Your task to perform on an android device: Open Chrome and go to the settings page Image 0: 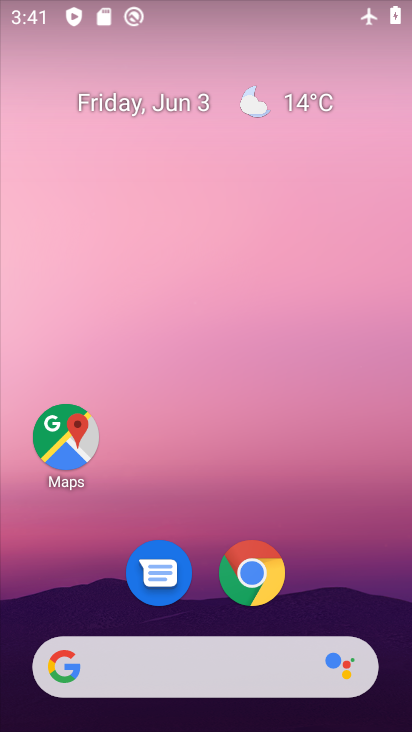
Step 0: drag from (370, 57) to (234, 178)
Your task to perform on an android device: Open Chrome and go to the settings page Image 1: 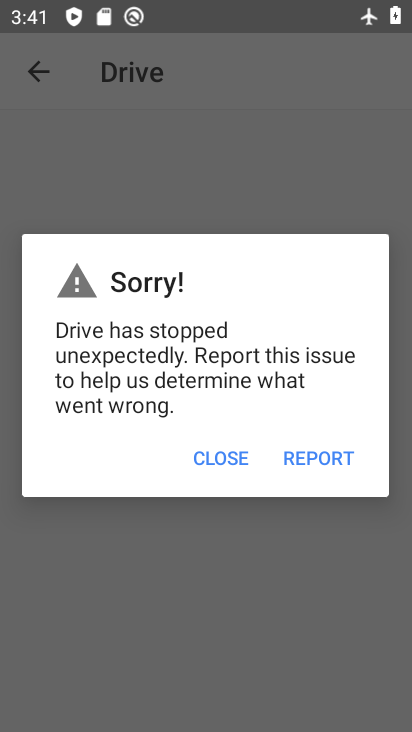
Step 1: press home button
Your task to perform on an android device: Open Chrome and go to the settings page Image 2: 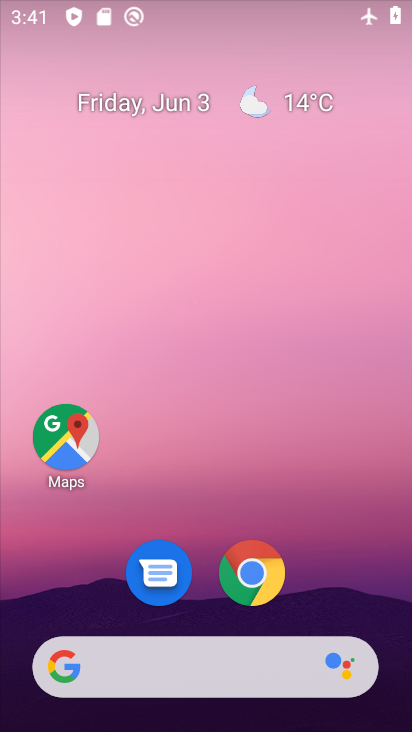
Step 2: drag from (243, 609) to (303, 73)
Your task to perform on an android device: Open Chrome and go to the settings page Image 3: 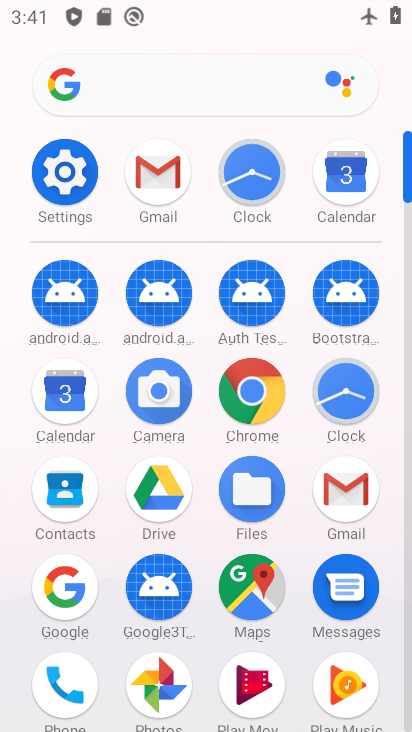
Step 3: click (259, 422)
Your task to perform on an android device: Open Chrome and go to the settings page Image 4: 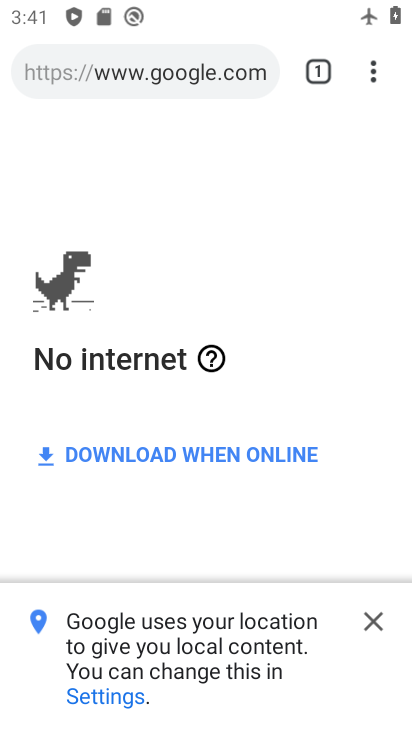
Step 4: click (371, 80)
Your task to perform on an android device: Open Chrome and go to the settings page Image 5: 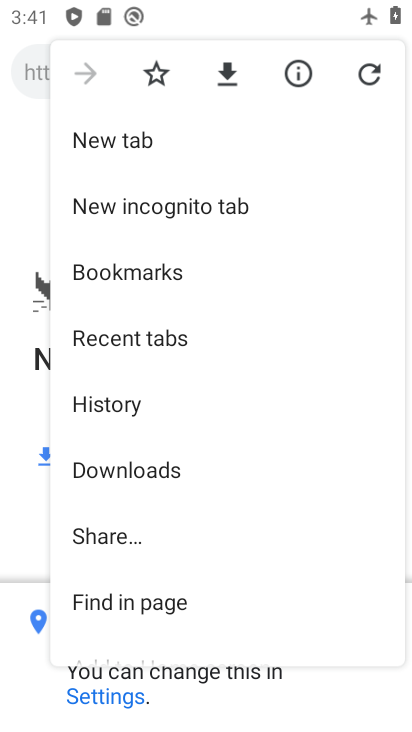
Step 5: drag from (196, 491) to (249, 144)
Your task to perform on an android device: Open Chrome and go to the settings page Image 6: 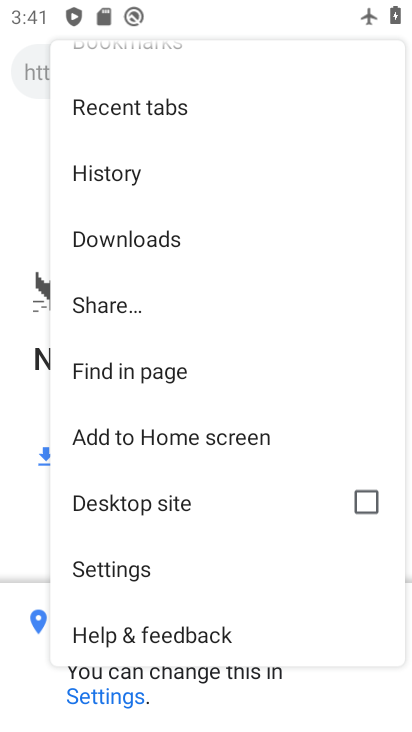
Step 6: drag from (179, 517) to (193, 303)
Your task to perform on an android device: Open Chrome and go to the settings page Image 7: 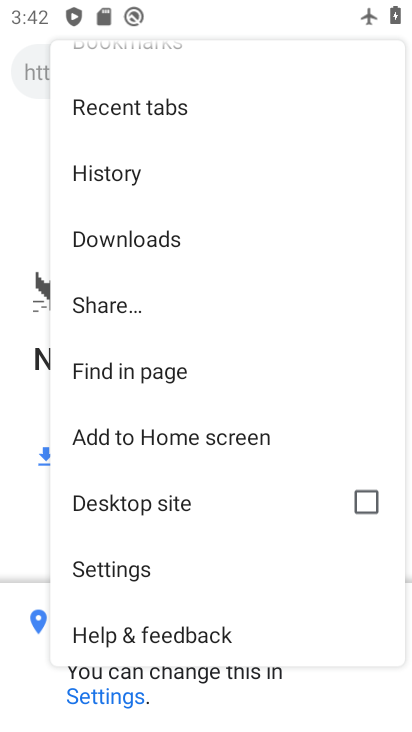
Step 7: click (165, 571)
Your task to perform on an android device: Open Chrome and go to the settings page Image 8: 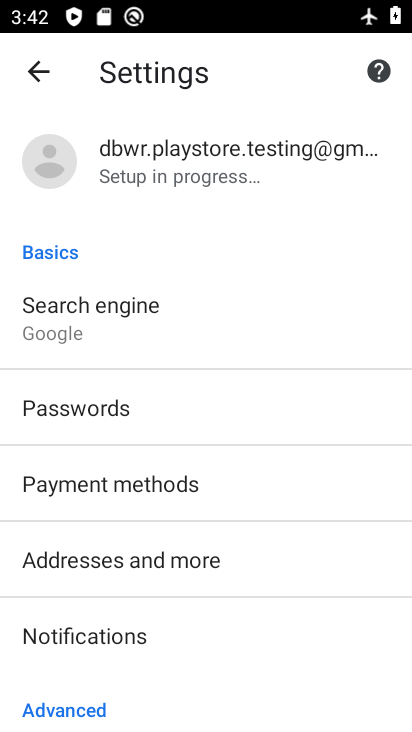
Step 8: task complete